Your task to perform on an android device: install app "TextNow: Call + Text Unlimited" Image 0: 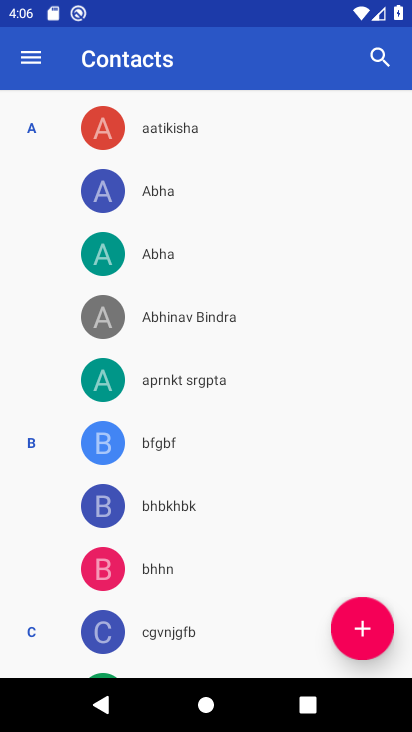
Step 0: press home button
Your task to perform on an android device: install app "TextNow: Call + Text Unlimited" Image 1: 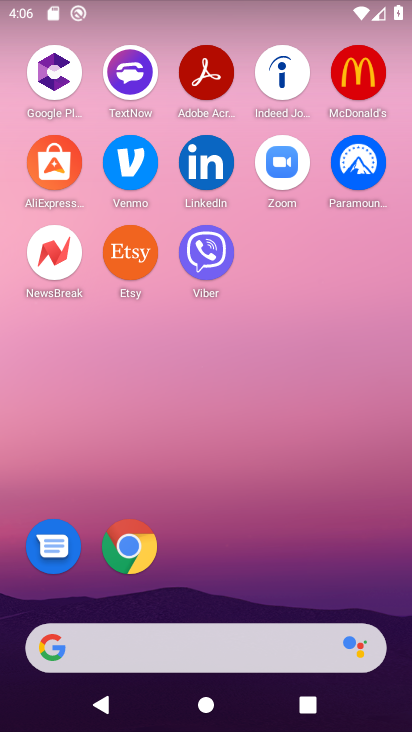
Step 1: drag from (400, 624) to (346, 212)
Your task to perform on an android device: install app "TextNow: Call + Text Unlimited" Image 2: 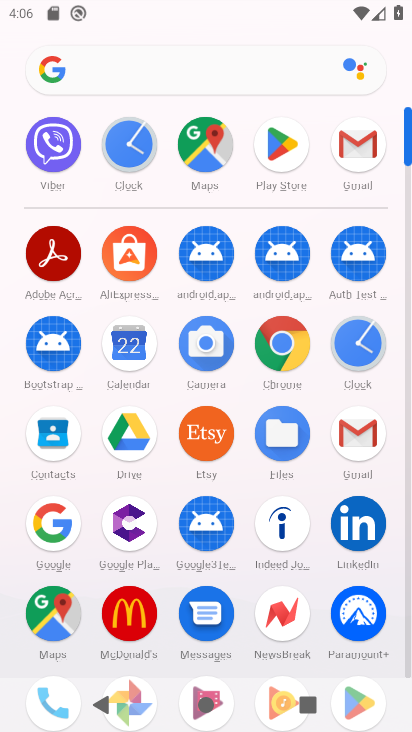
Step 2: drag from (319, 572) to (318, 357)
Your task to perform on an android device: install app "TextNow: Call + Text Unlimited" Image 3: 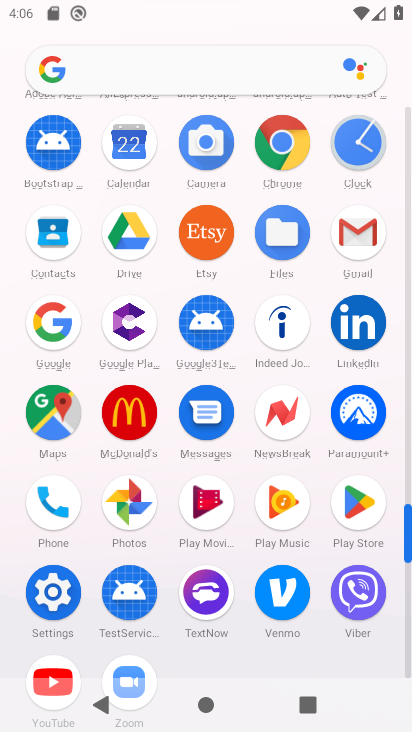
Step 3: click (360, 502)
Your task to perform on an android device: install app "TextNow: Call + Text Unlimited" Image 4: 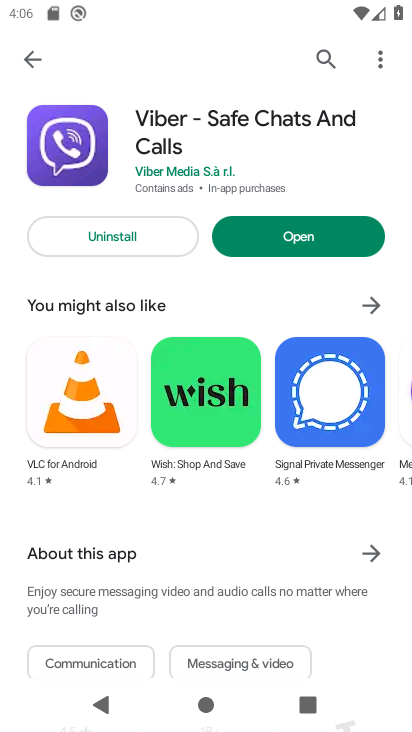
Step 4: click (324, 54)
Your task to perform on an android device: install app "TextNow: Call + Text Unlimited" Image 5: 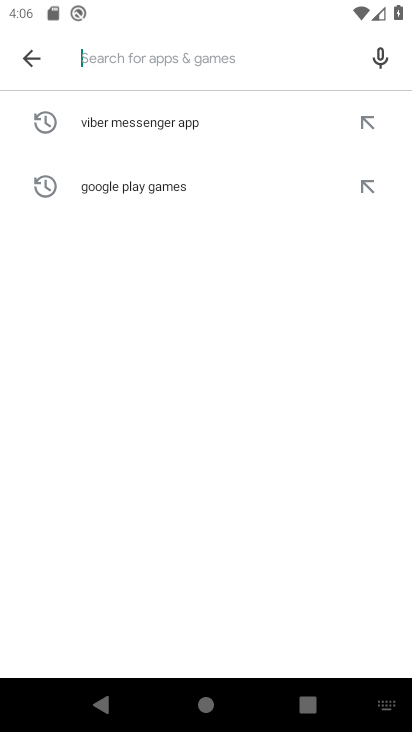
Step 5: type "TextNow: Call + Text Unlimited"
Your task to perform on an android device: install app "TextNow: Call + Text Unlimited" Image 6: 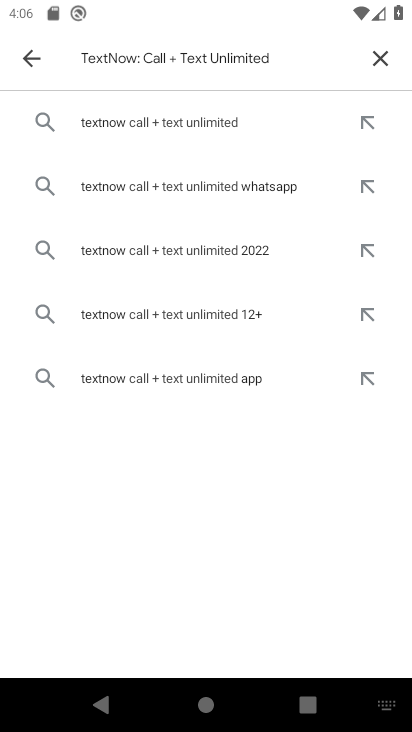
Step 6: click (158, 124)
Your task to perform on an android device: install app "TextNow: Call + Text Unlimited" Image 7: 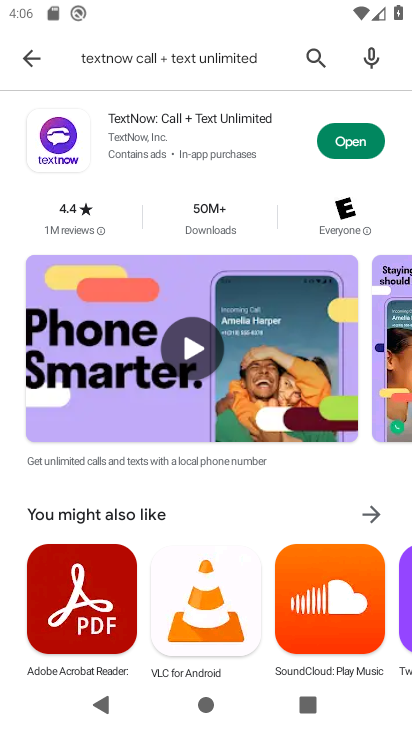
Step 7: click (137, 136)
Your task to perform on an android device: install app "TextNow: Call + Text Unlimited" Image 8: 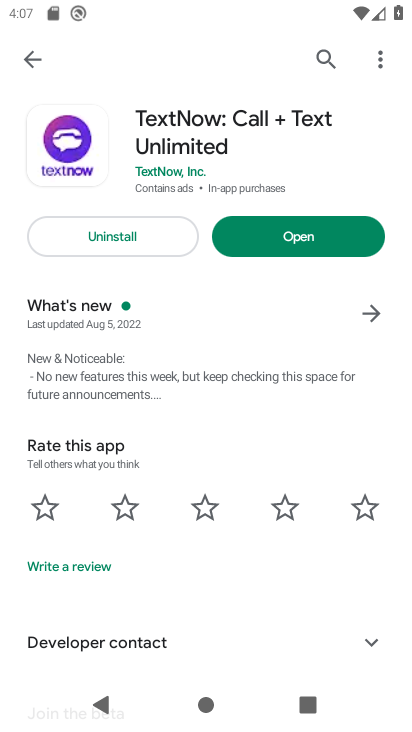
Step 8: task complete